Your task to perform on an android device: Open my contact list Image 0: 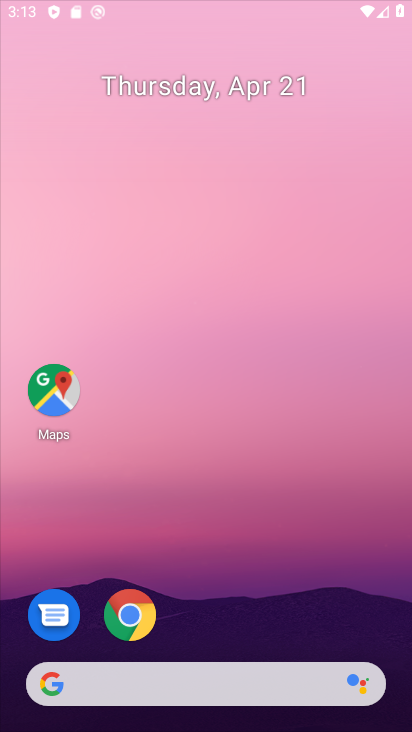
Step 0: click (155, 36)
Your task to perform on an android device: Open my contact list Image 1: 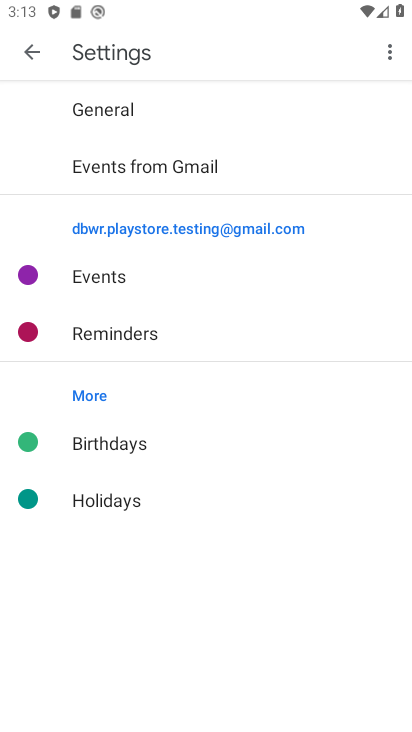
Step 1: press back button
Your task to perform on an android device: Open my contact list Image 2: 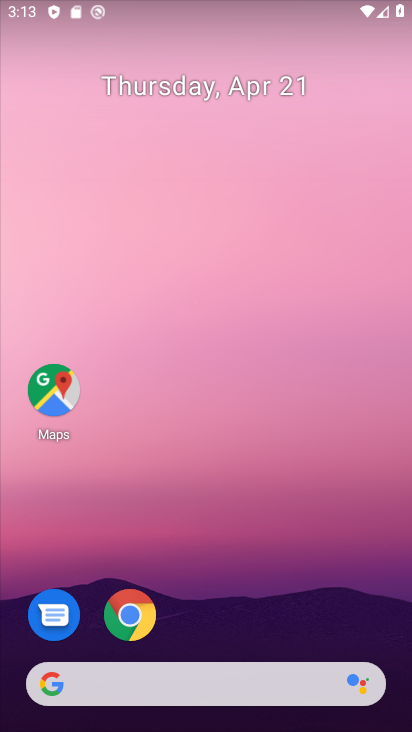
Step 2: drag from (302, 549) to (200, 4)
Your task to perform on an android device: Open my contact list Image 3: 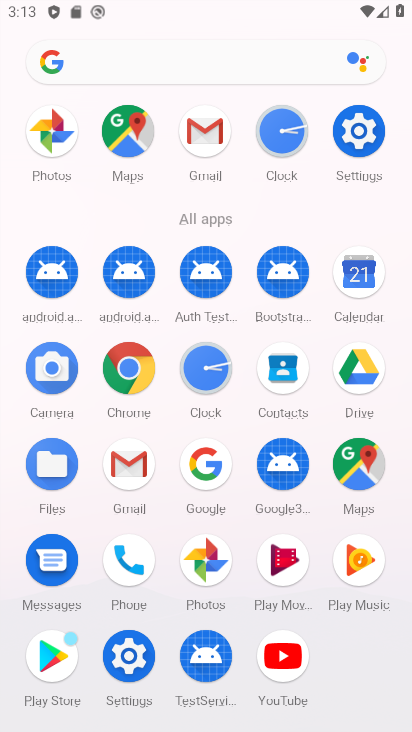
Step 3: click (287, 366)
Your task to perform on an android device: Open my contact list Image 4: 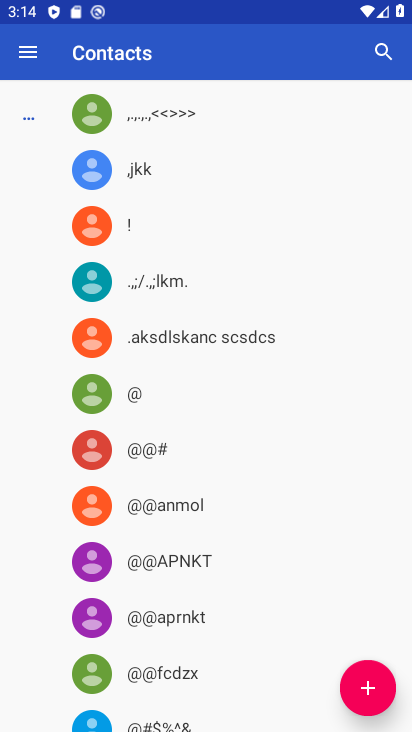
Step 4: task complete